Your task to perform on an android device: change alarm snooze length Image 0: 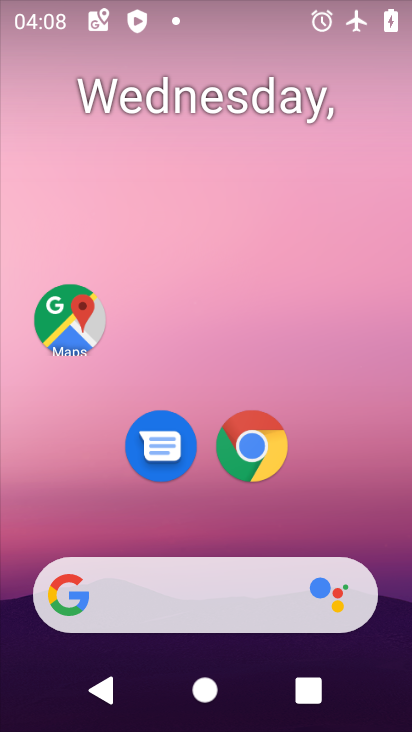
Step 0: drag from (221, 518) to (245, 97)
Your task to perform on an android device: change alarm snooze length Image 1: 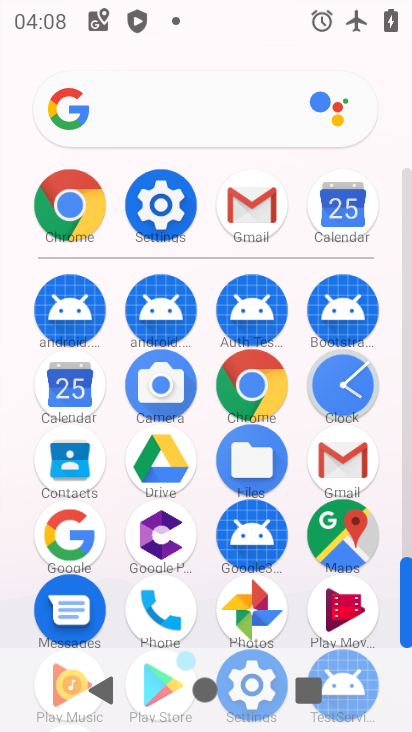
Step 1: click (343, 375)
Your task to perform on an android device: change alarm snooze length Image 2: 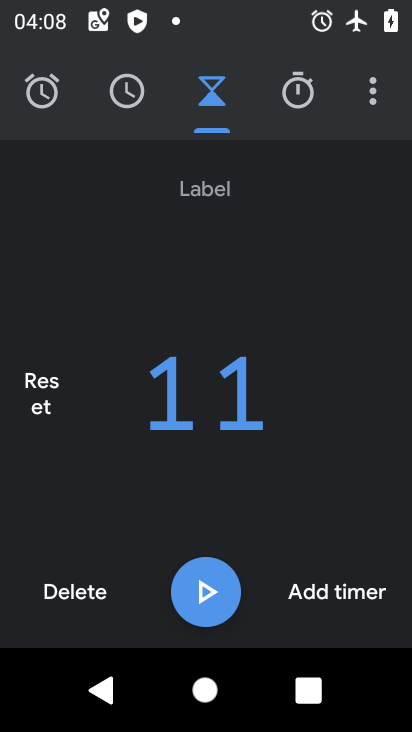
Step 2: click (379, 83)
Your task to perform on an android device: change alarm snooze length Image 3: 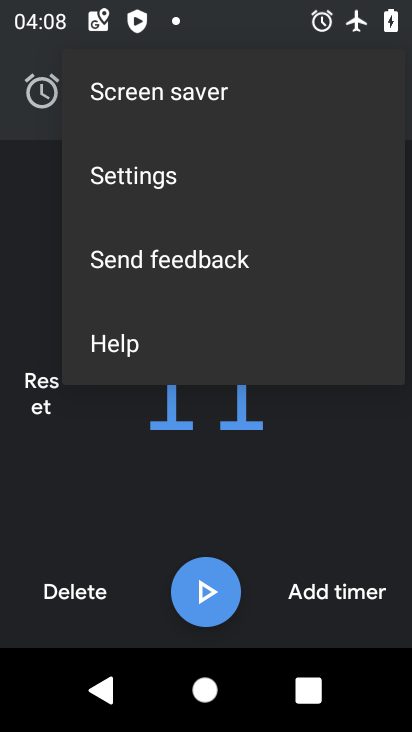
Step 3: click (206, 181)
Your task to perform on an android device: change alarm snooze length Image 4: 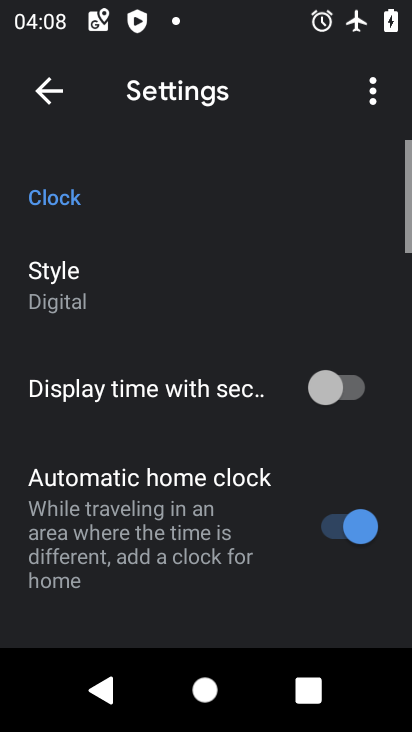
Step 4: drag from (186, 515) to (186, 159)
Your task to perform on an android device: change alarm snooze length Image 5: 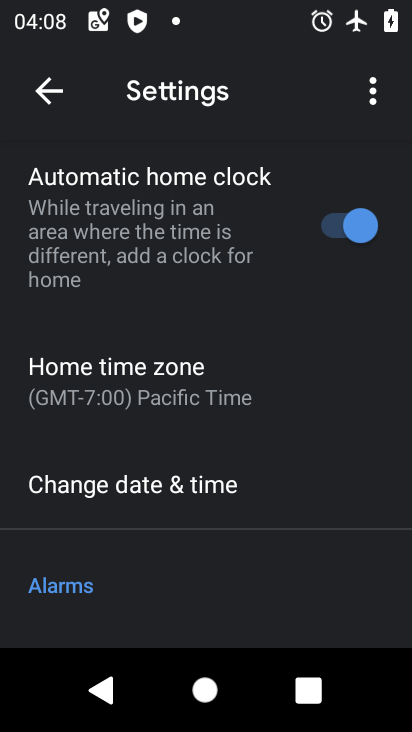
Step 5: drag from (211, 546) to (226, 247)
Your task to perform on an android device: change alarm snooze length Image 6: 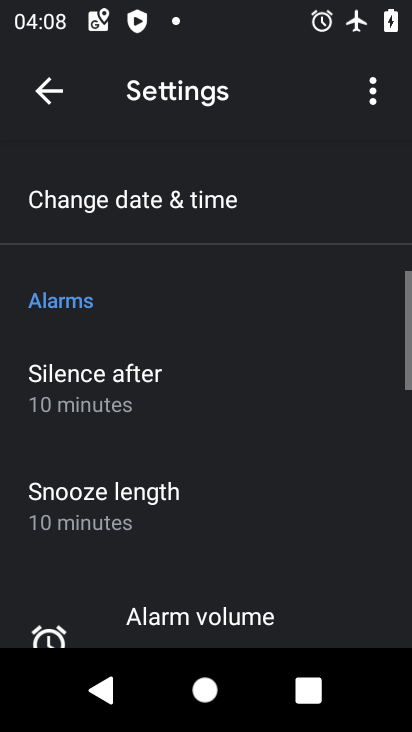
Step 6: click (204, 496)
Your task to perform on an android device: change alarm snooze length Image 7: 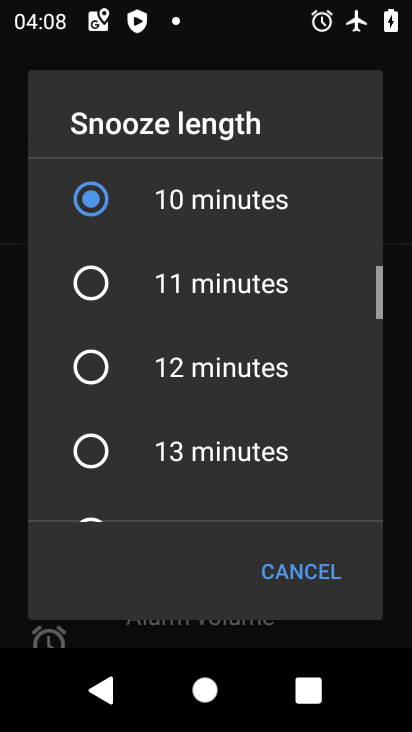
Step 7: click (207, 458)
Your task to perform on an android device: change alarm snooze length Image 8: 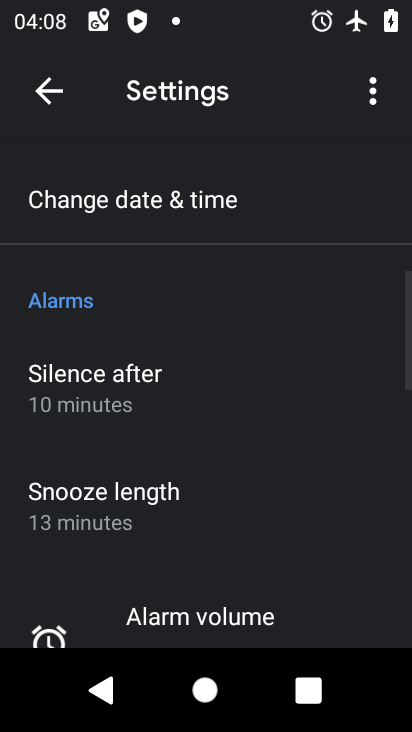
Step 8: task complete